Your task to perform on an android device: Check my email inbox Image 0: 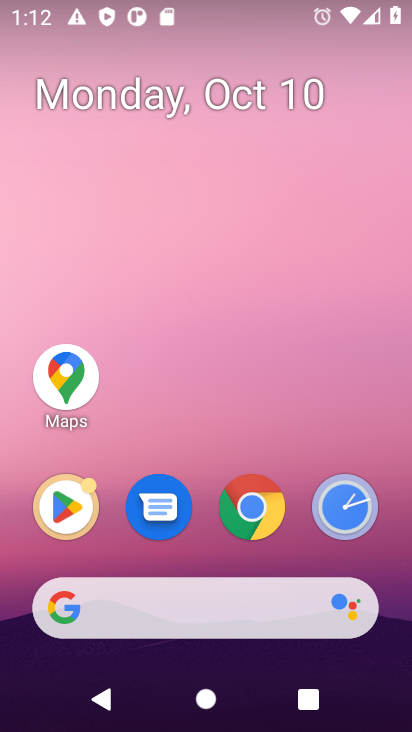
Step 0: drag from (383, 540) to (383, 113)
Your task to perform on an android device: Check my email inbox Image 1: 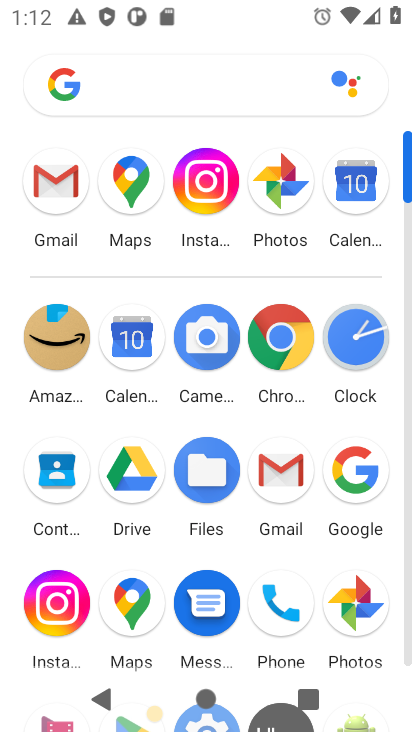
Step 1: drag from (387, 546) to (393, 232)
Your task to perform on an android device: Check my email inbox Image 2: 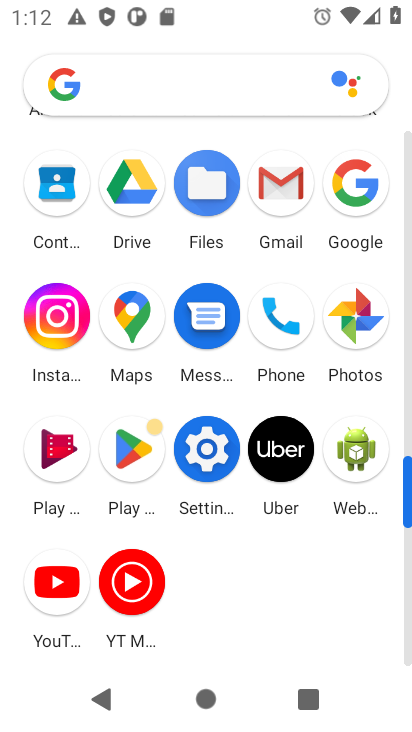
Step 2: click (282, 181)
Your task to perform on an android device: Check my email inbox Image 3: 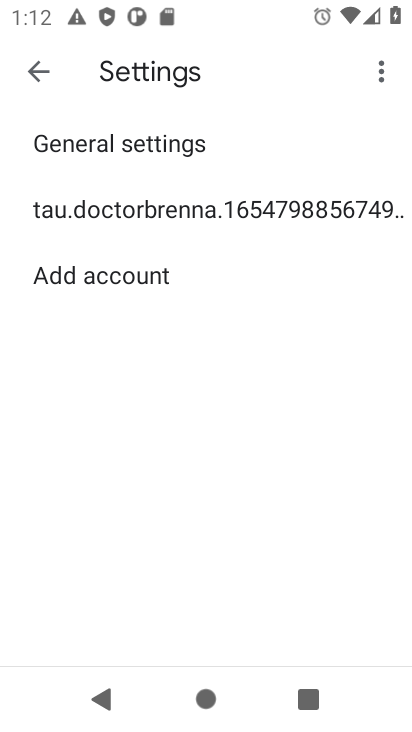
Step 3: task complete